Your task to perform on an android device: delete a single message in the gmail app Image 0: 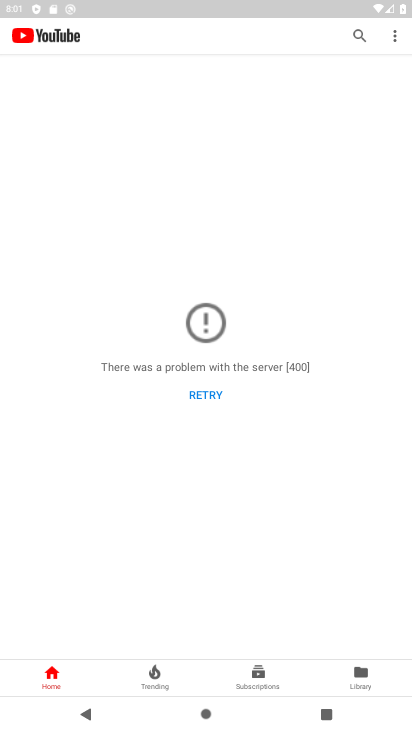
Step 0: press home button
Your task to perform on an android device: delete a single message in the gmail app Image 1: 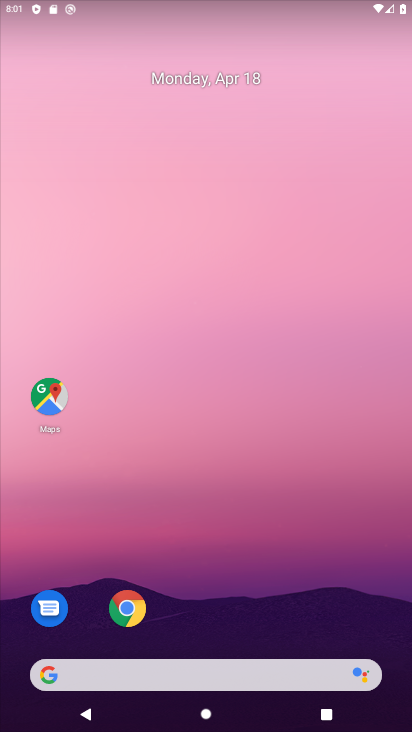
Step 1: drag from (224, 554) to (242, 185)
Your task to perform on an android device: delete a single message in the gmail app Image 2: 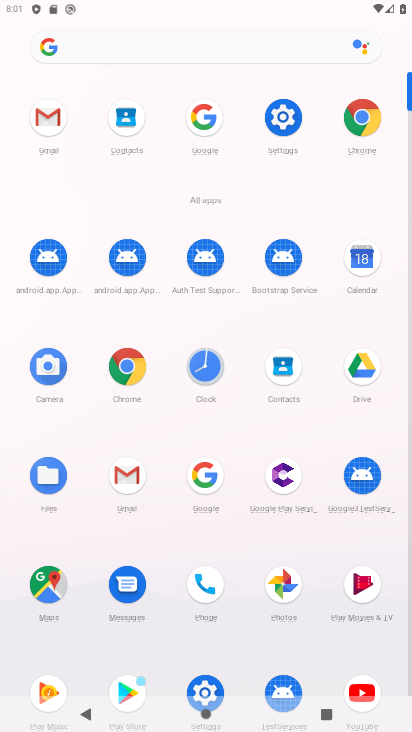
Step 2: click (40, 118)
Your task to perform on an android device: delete a single message in the gmail app Image 3: 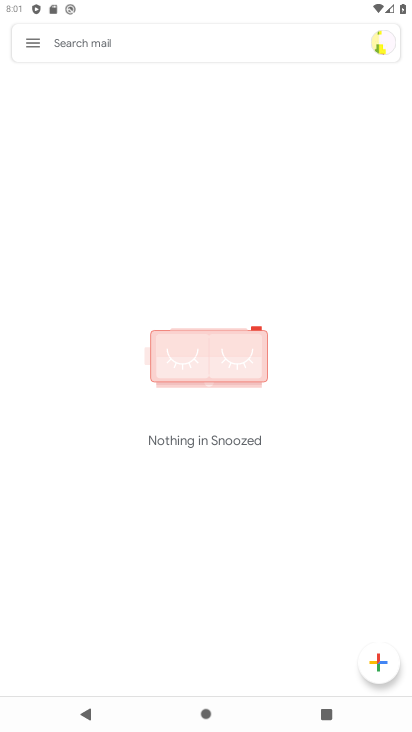
Step 3: click (31, 45)
Your task to perform on an android device: delete a single message in the gmail app Image 4: 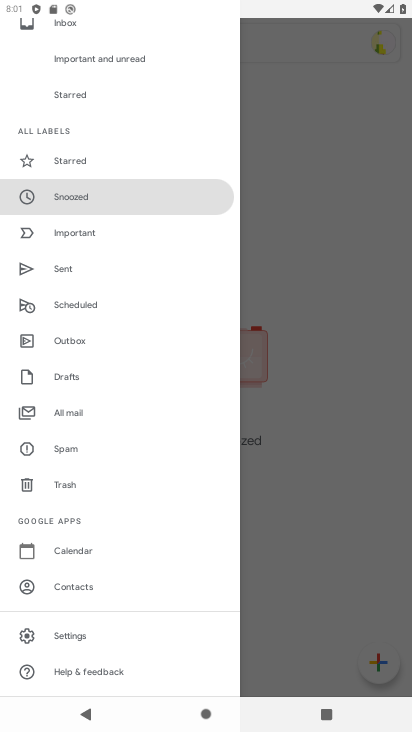
Step 4: drag from (128, 294) to (135, 455)
Your task to perform on an android device: delete a single message in the gmail app Image 5: 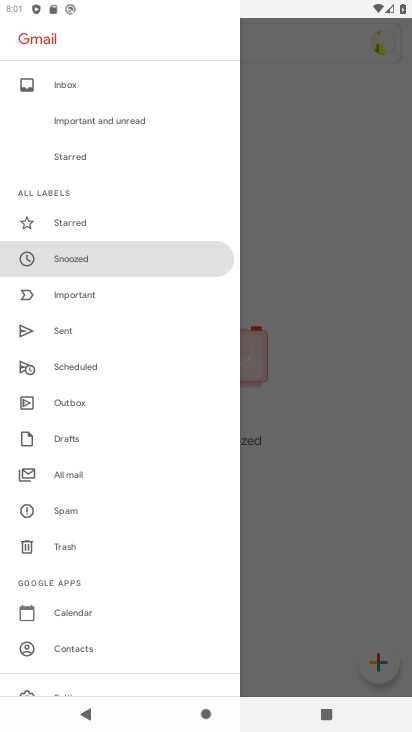
Step 5: click (85, 472)
Your task to perform on an android device: delete a single message in the gmail app Image 6: 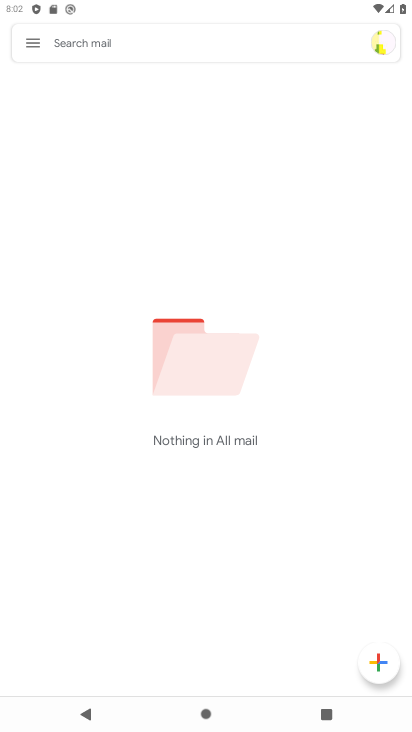
Step 6: task complete